Your task to perform on an android device: Open display settings Image 0: 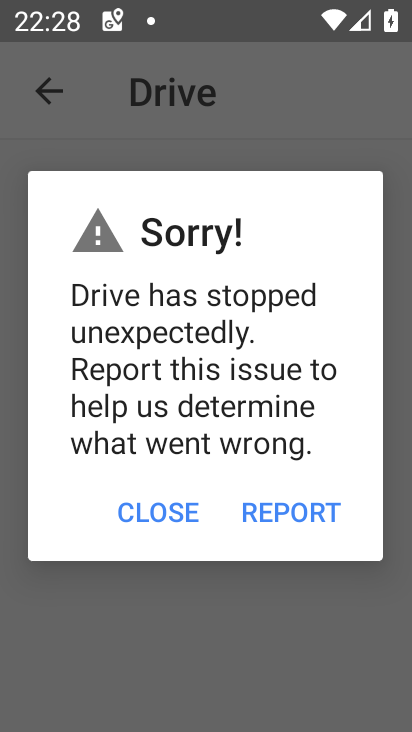
Step 0: press home button
Your task to perform on an android device: Open display settings Image 1: 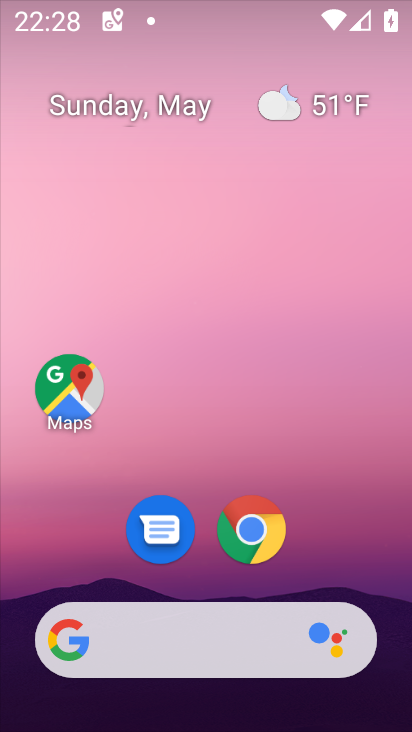
Step 1: drag from (203, 646) to (198, 72)
Your task to perform on an android device: Open display settings Image 2: 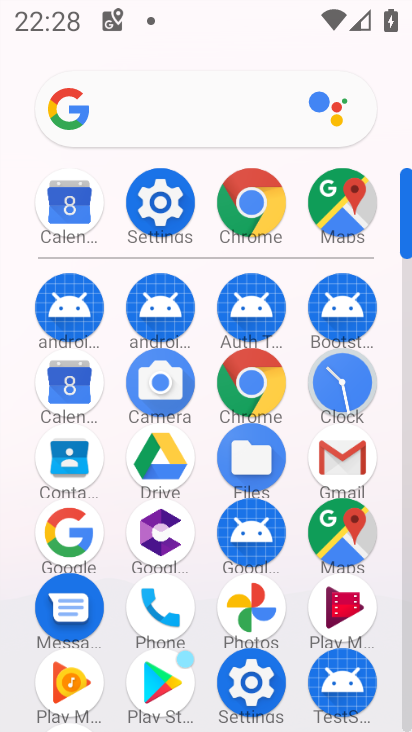
Step 2: click (162, 205)
Your task to perform on an android device: Open display settings Image 3: 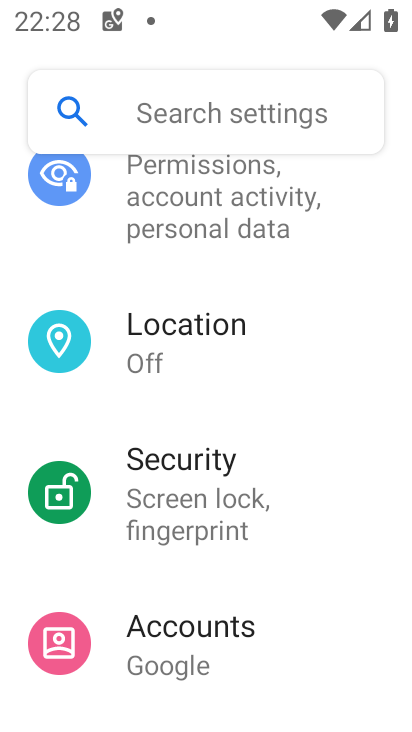
Step 3: drag from (227, 251) to (269, 528)
Your task to perform on an android device: Open display settings Image 4: 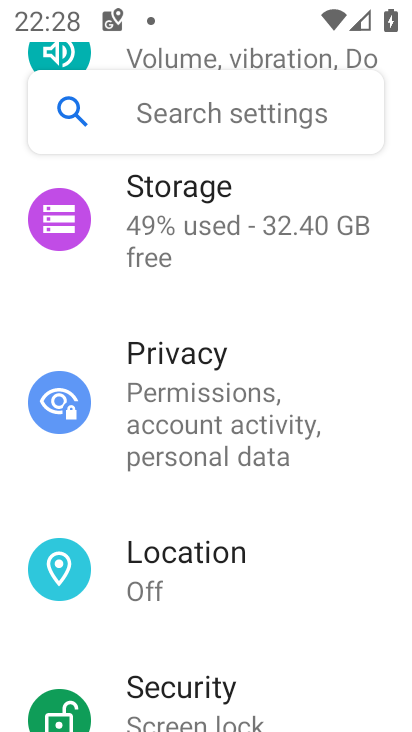
Step 4: drag from (198, 271) to (245, 702)
Your task to perform on an android device: Open display settings Image 5: 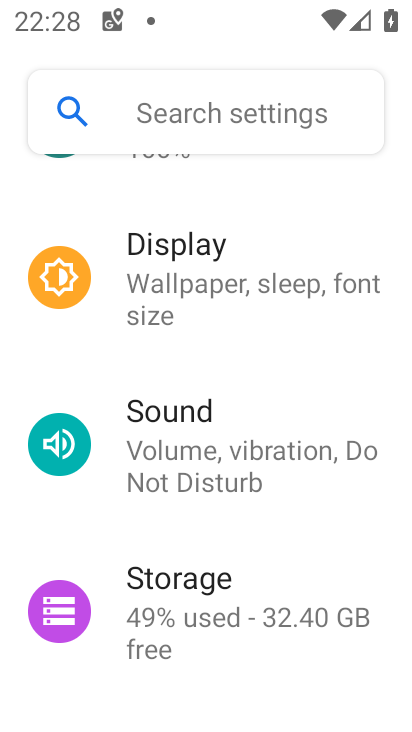
Step 5: click (212, 291)
Your task to perform on an android device: Open display settings Image 6: 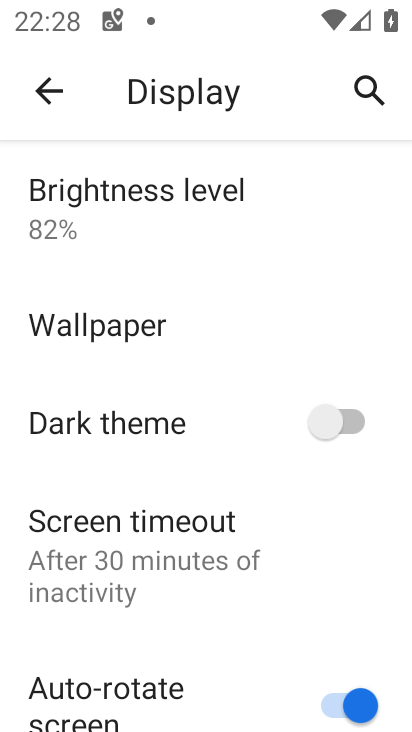
Step 6: task complete